Your task to perform on an android device: Search for Italian restaurants on Maps Image 0: 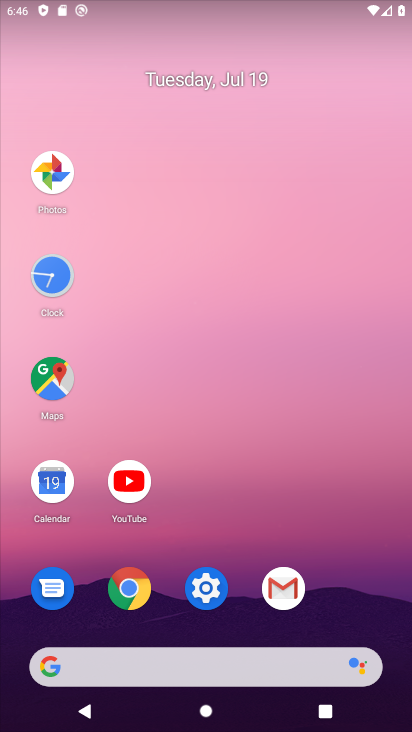
Step 0: click (41, 380)
Your task to perform on an android device: Search for Italian restaurants on Maps Image 1: 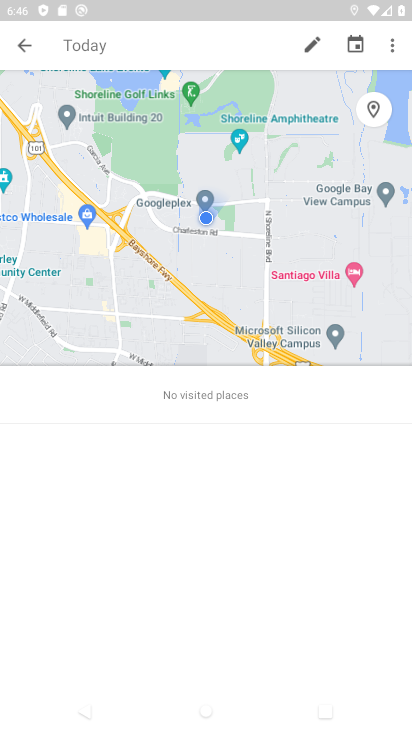
Step 1: click (27, 44)
Your task to perform on an android device: Search for Italian restaurants on Maps Image 2: 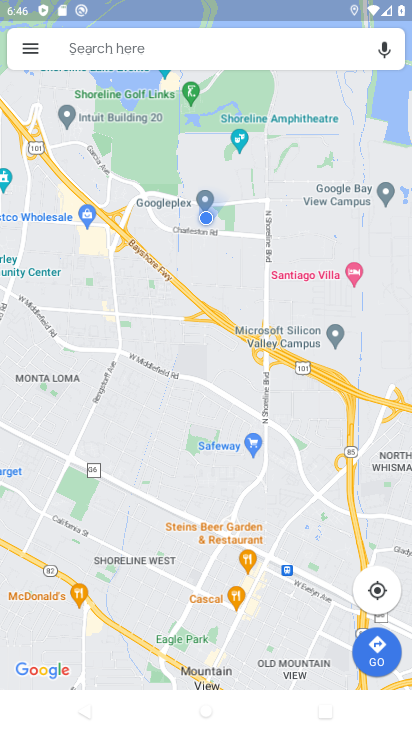
Step 2: click (112, 43)
Your task to perform on an android device: Search for Italian restaurants on Maps Image 3: 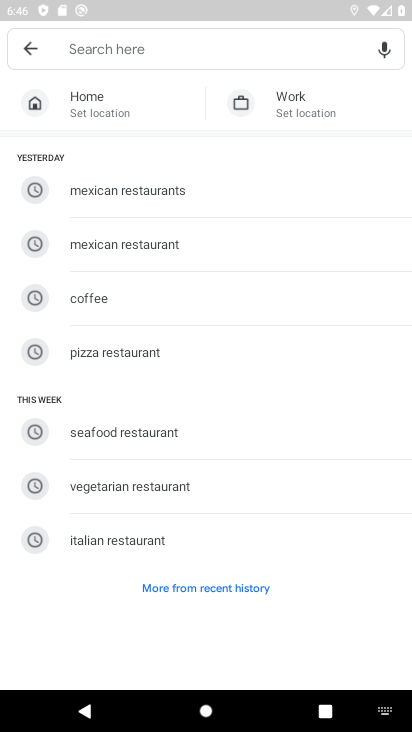
Step 3: click (112, 535)
Your task to perform on an android device: Search for Italian restaurants on Maps Image 4: 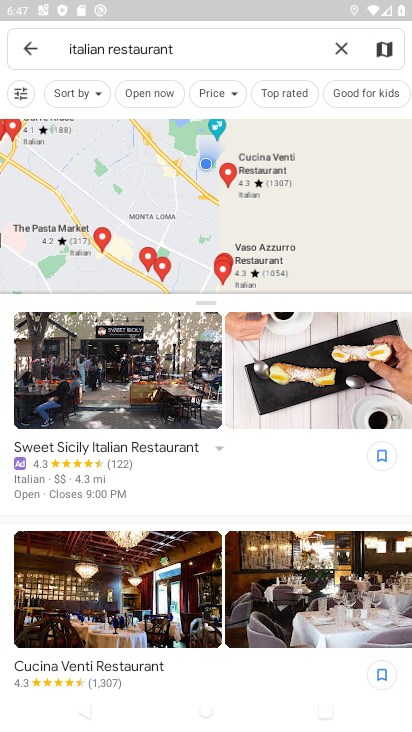
Step 4: task complete